Your task to perform on an android device: Go to location settings Image 0: 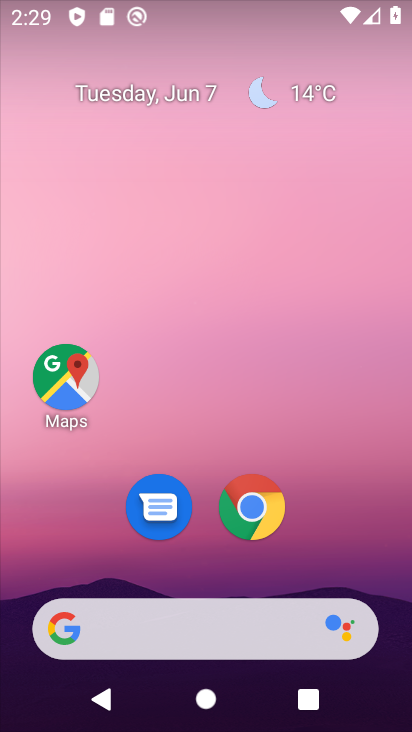
Step 0: drag from (344, 499) to (338, 102)
Your task to perform on an android device: Go to location settings Image 1: 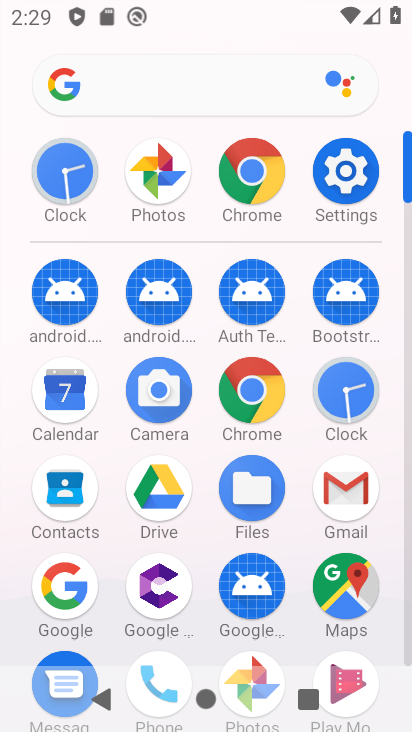
Step 1: click (339, 175)
Your task to perform on an android device: Go to location settings Image 2: 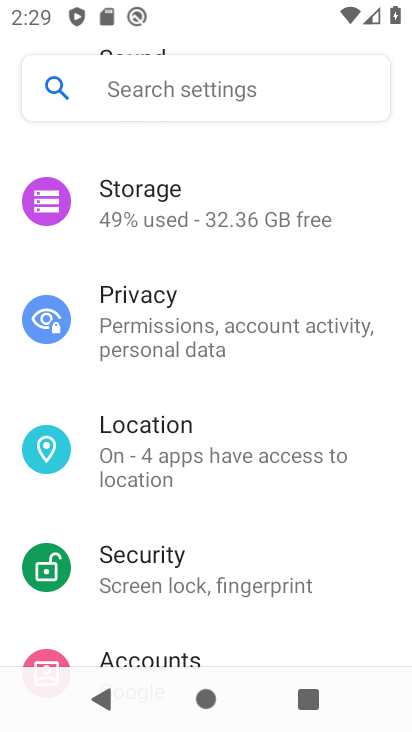
Step 2: click (180, 429)
Your task to perform on an android device: Go to location settings Image 3: 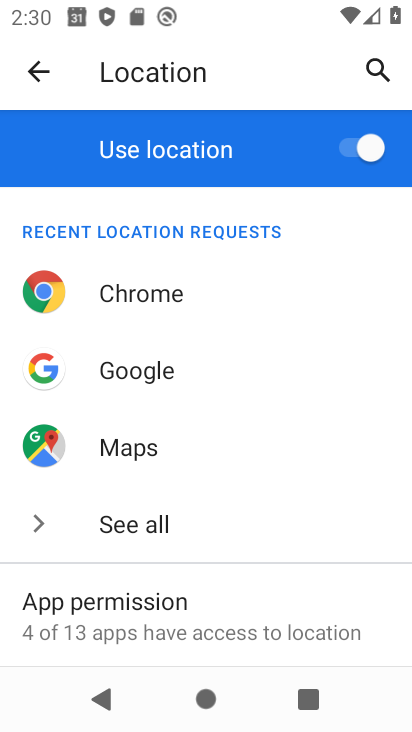
Step 3: task complete